Your task to perform on an android device: turn on showing notifications on the lock screen Image 0: 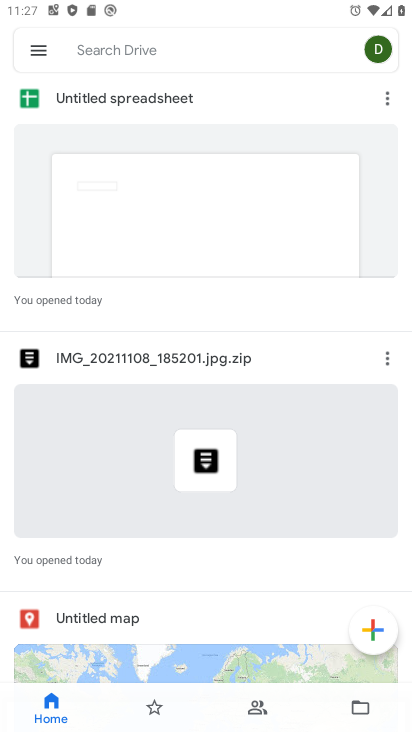
Step 0: press home button
Your task to perform on an android device: turn on showing notifications on the lock screen Image 1: 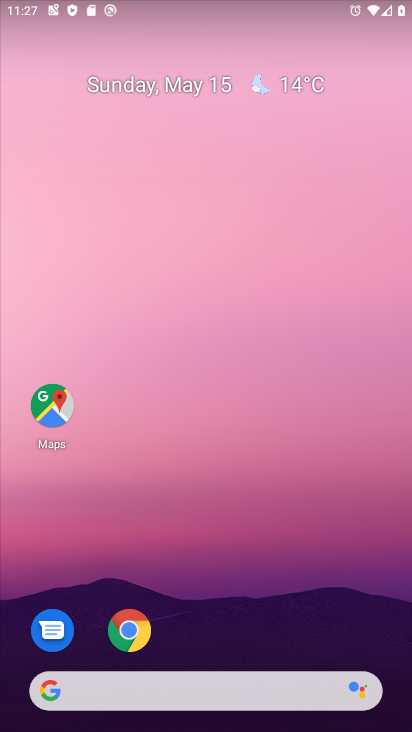
Step 1: drag from (216, 722) to (216, 138)
Your task to perform on an android device: turn on showing notifications on the lock screen Image 2: 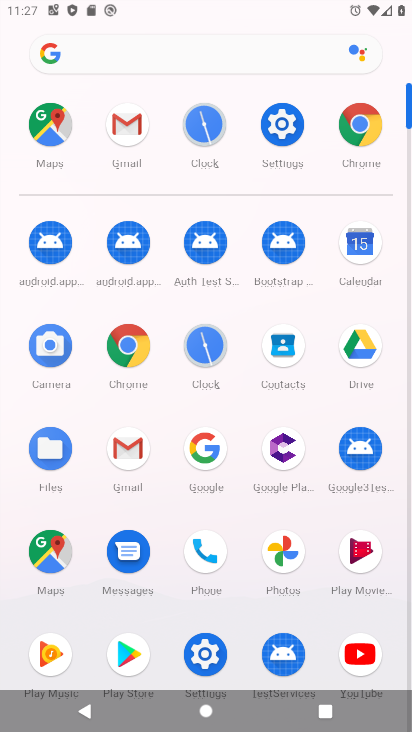
Step 2: click (280, 134)
Your task to perform on an android device: turn on showing notifications on the lock screen Image 3: 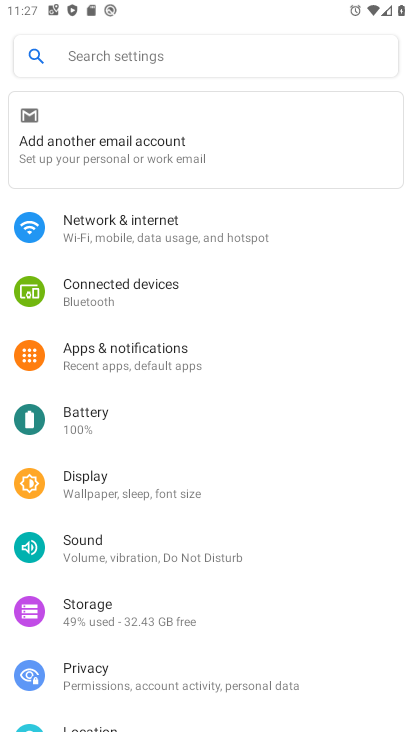
Step 3: click (109, 359)
Your task to perform on an android device: turn on showing notifications on the lock screen Image 4: 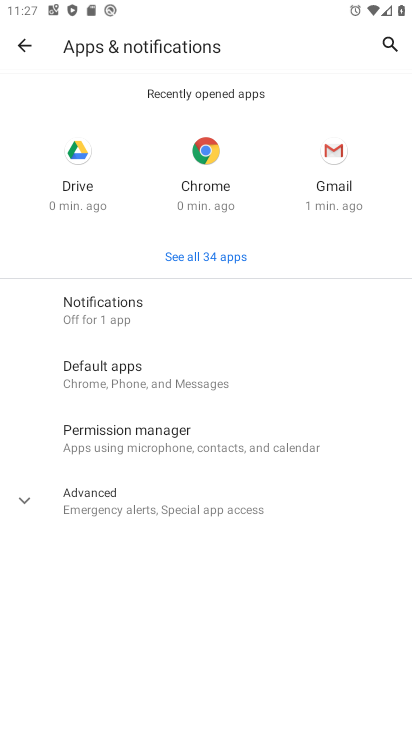
Step 4: click (102, 307)
Your task to perform on an android device: turn on showing notifications on the lock screen Image 5: 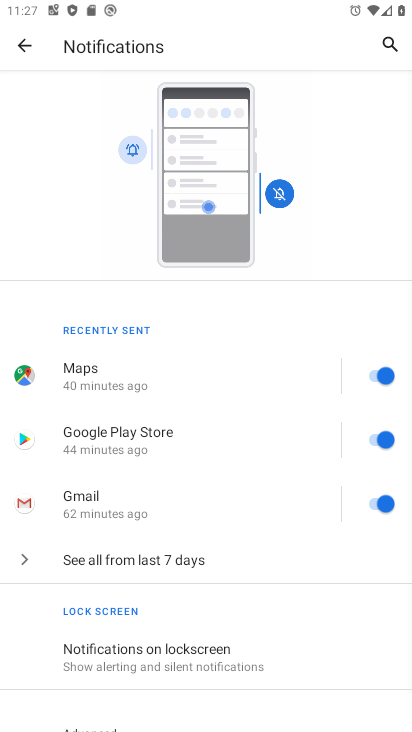
Step 5: task complete